Your task to perform on an android device: turn on airplane mode Image 0: 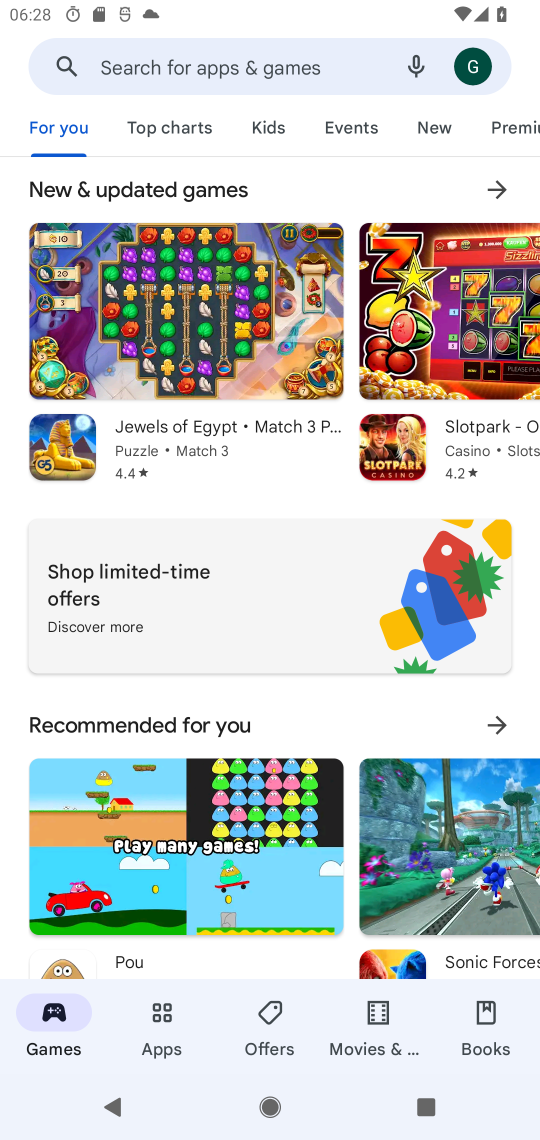
Step 0: press home button
Your task to perform on an android device: turn on airplane mode Image 1: 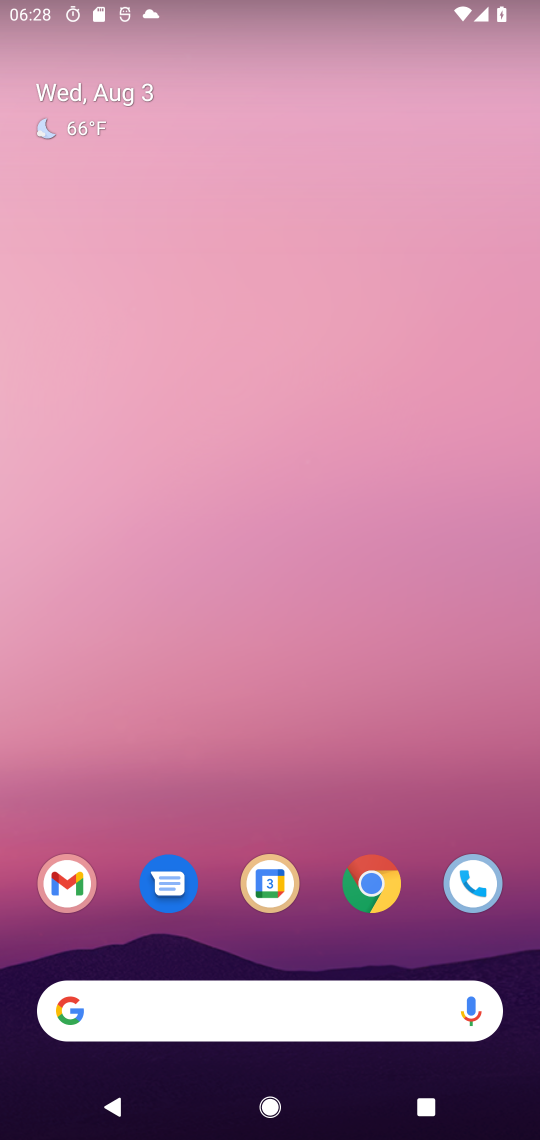
Step 1: drag from (266, 993) to (321, 168)
Your task to perform on an android device: turn on airplane mode Image 2: 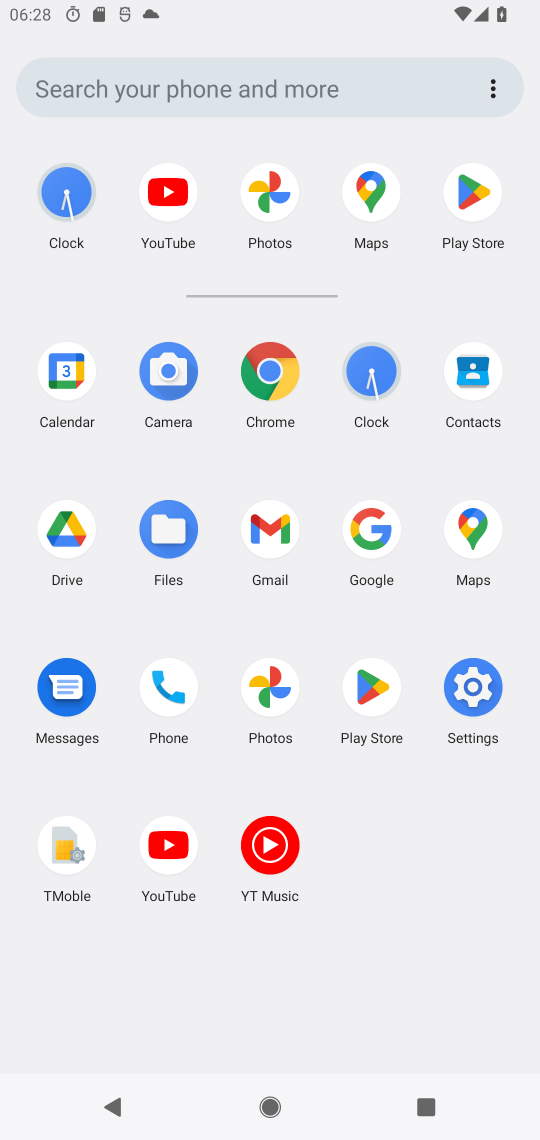
Step 2: click (464, 699)
Your task to perform on an android device: turn on airplane mode Image 3: 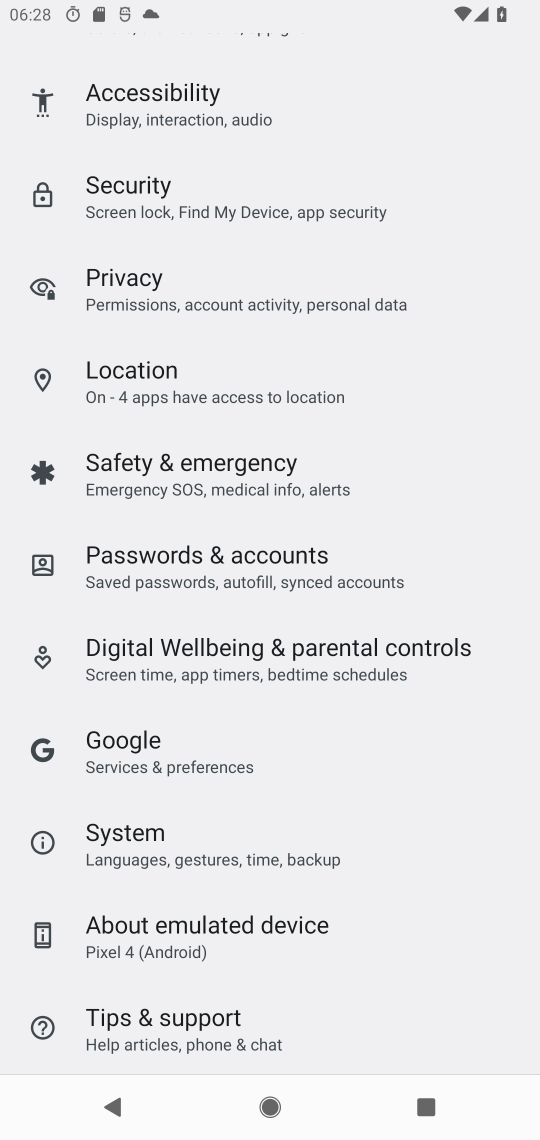
Step 3: drag from (229, 128) to (251, 831)
Your task to perform on an android device: turn on airplane mode Image 4: 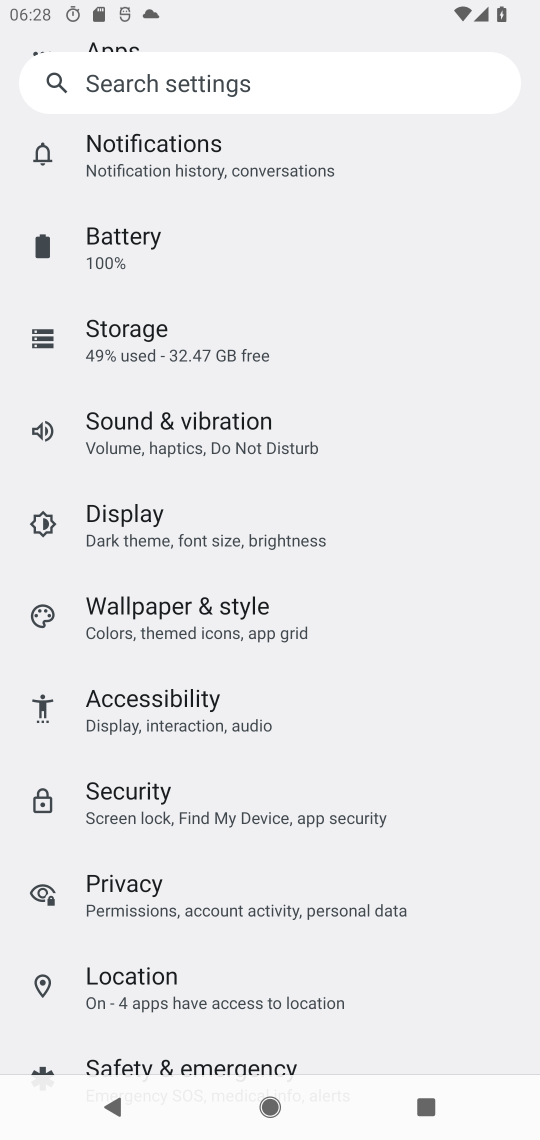
Step 4: drag from (176, 187) to (183, 800)
Your task to perform on an android device: turn on airplane mode Image 5: 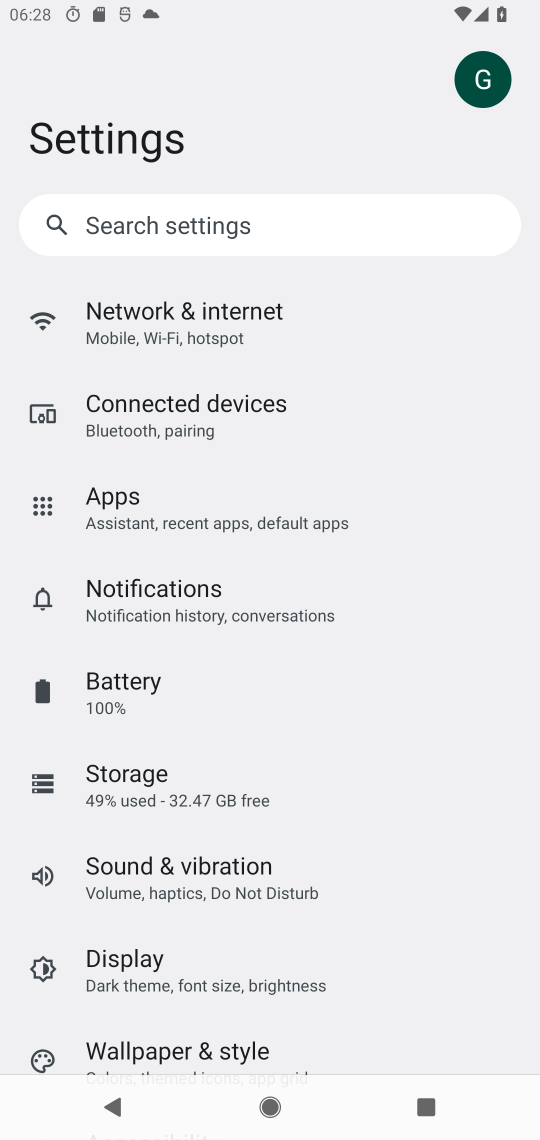
Step 5: click (177, 328)
Your task to perform on an android device: turn on airplane mode Image 6: 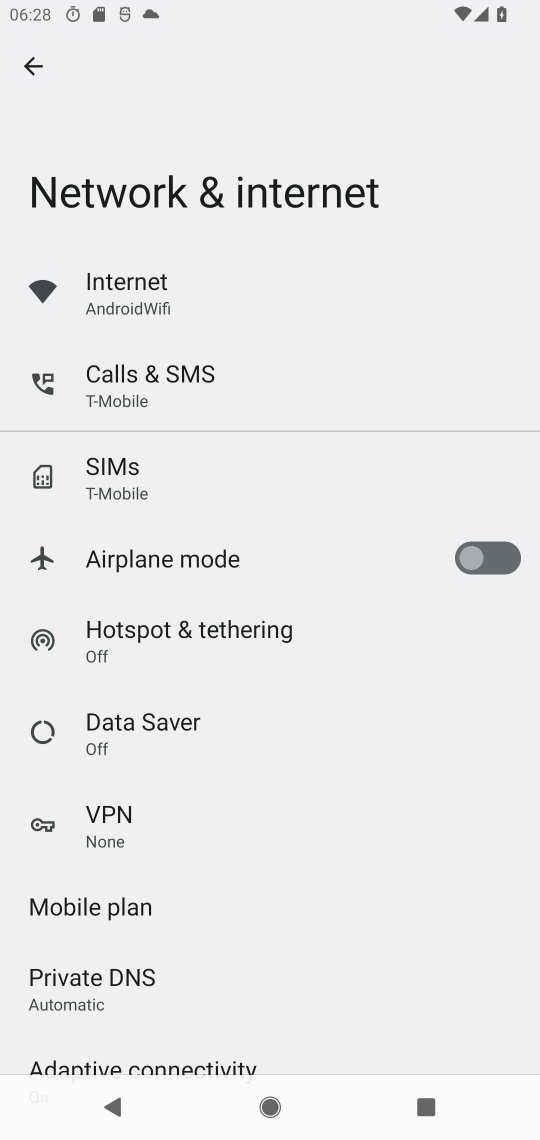
Step 6: click (483, 552)
Your task to perform on an android device: turn on airplane mode Image 7: 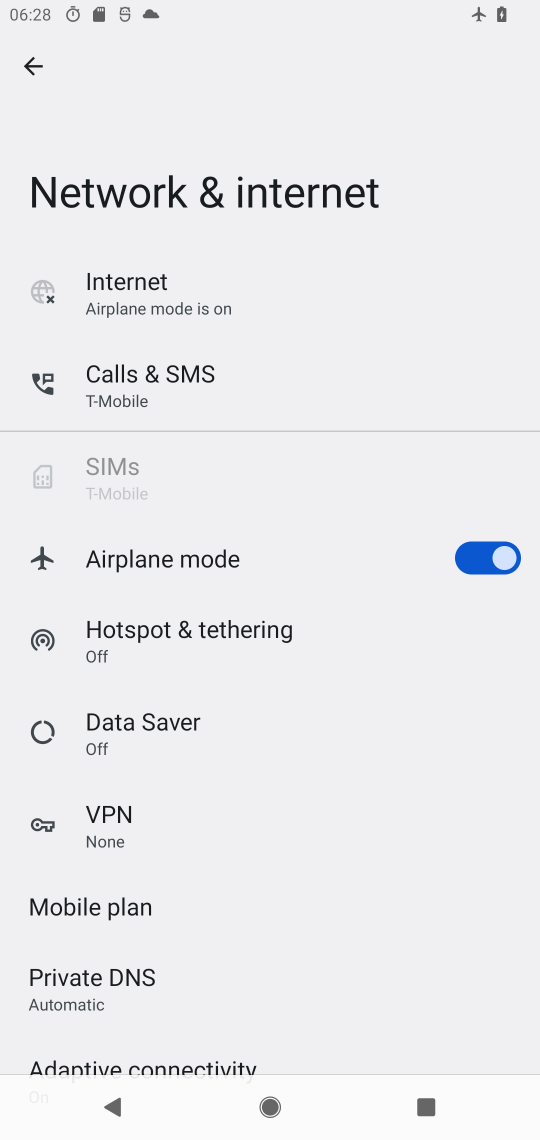
Step 7: task complete